Your task to perform on an android device: toggle sleep mode Image 0: 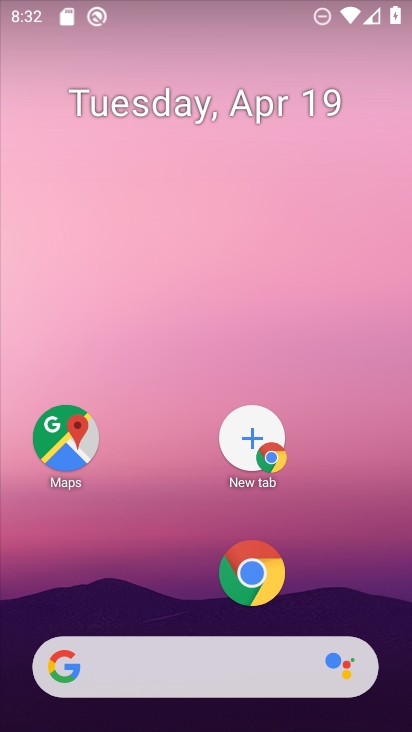
Step 0: drag from (124, 527) to (198, 8)
Your task to perform on an android device: toggle sleep mode Image 1: 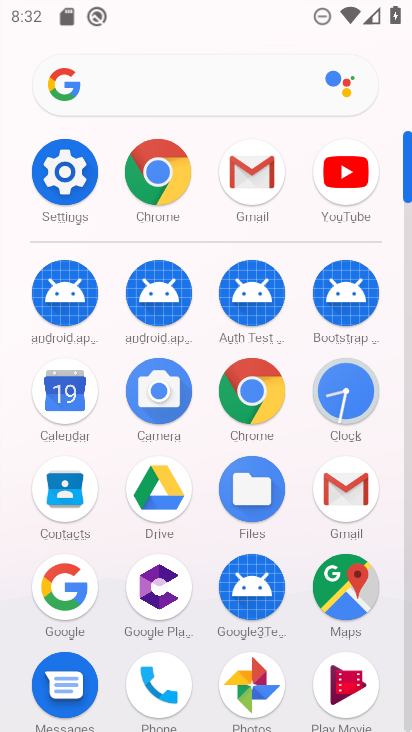
Step 1: click (78, 183)
Your task to perform on an android device: toggle sleep mode Image 2: 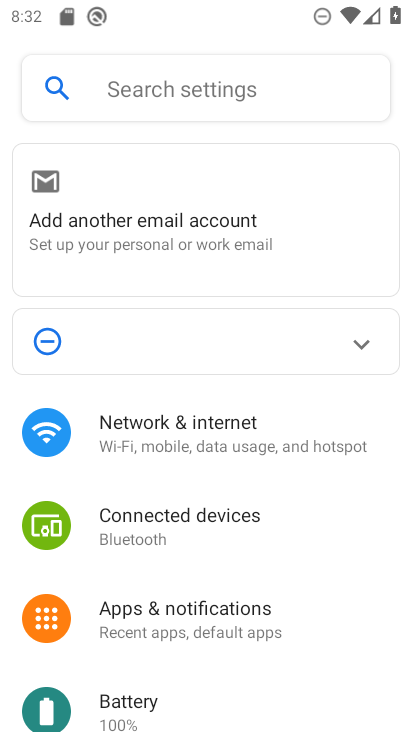
Step 2: drag from (135, 684) to (199, 89)
Your task to perform on an android device: toggle sleep mode Image 3: 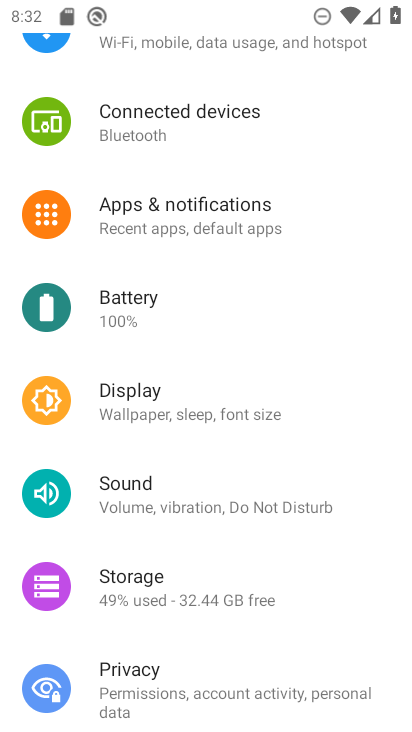
Step 3: drag from (159, 607) to (215, 0)
Your task to perform on an android device: toggle sleep mode Image 4: 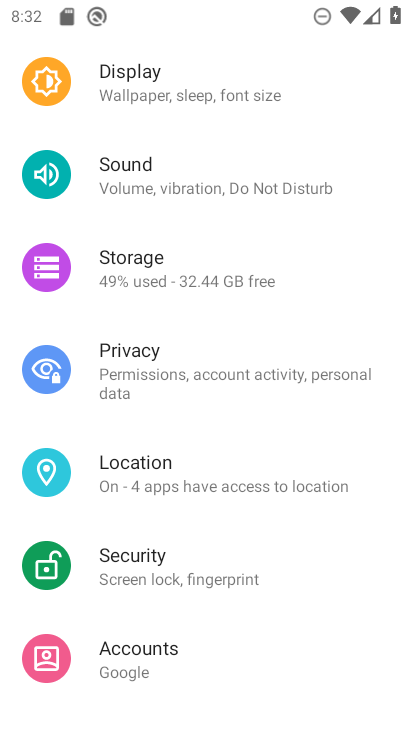
Step 4: drag from (198, 604) to (219, 207)
Your task to perform on an android device: toggle sleep mode Image 5: 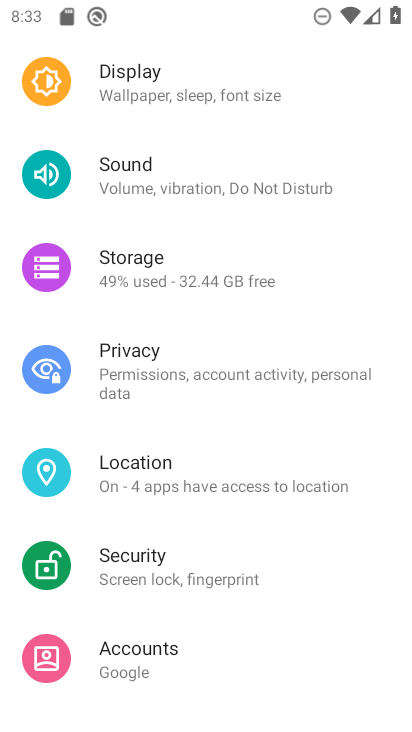
Step 5: click (181, 521)
Your task to perform on an android device: toggle sleep mode Image 6: 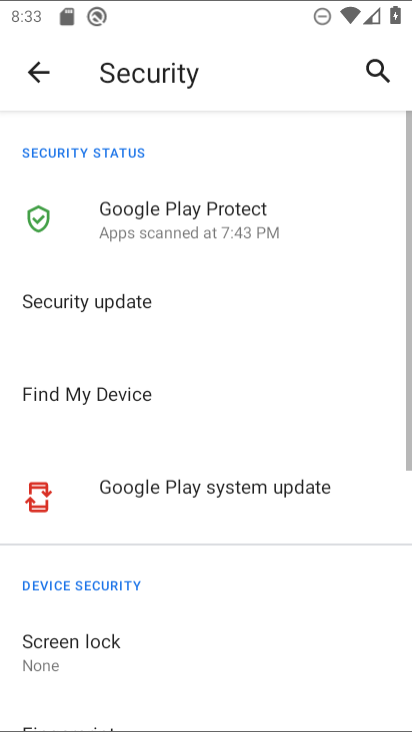
Step 6: task complete